Your task to perform on an android device: toggle notifications settings in the gmail app Image 0: 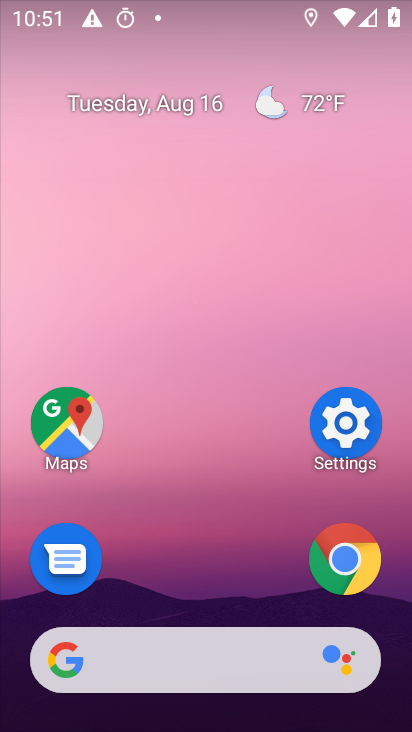
Step 0: drag from (222, 476) to (287, 136)
Your task to perform on an android device: toggle notifications settings in the gmail app Image 1: 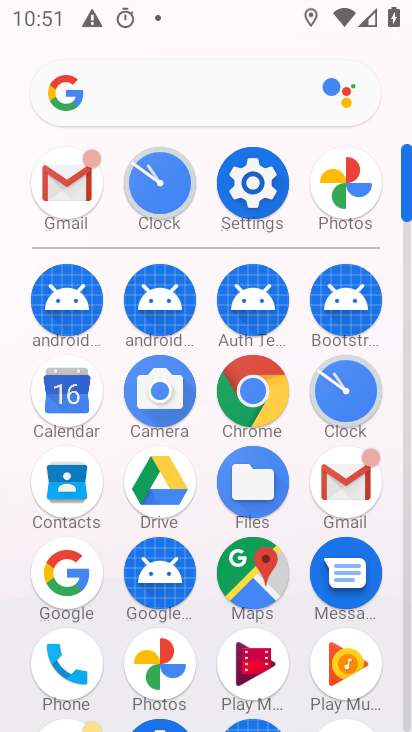
Step 1: click (344, 491)
Your task to perform on an android device: toggle notifications settings in the gmail app Image 2: 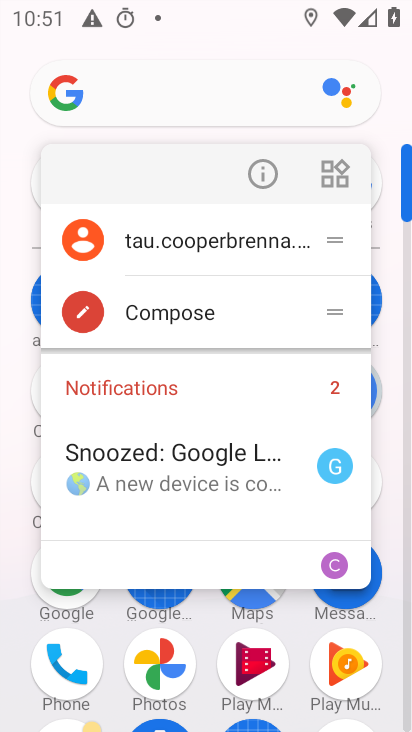
Step 2: click (382, 484)
Your task to perform on an android device: toggle notifications settings in the gmail app Image 3: 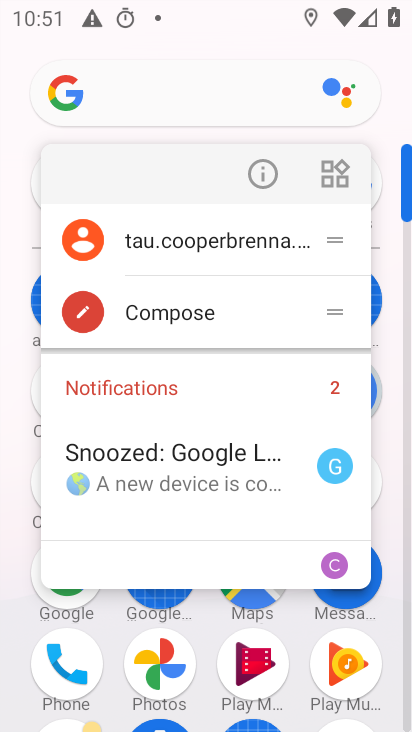
Step 3: click (382, 482)
Your task to perform on an android device: toggle notifications settings in the gmail app Image 4: 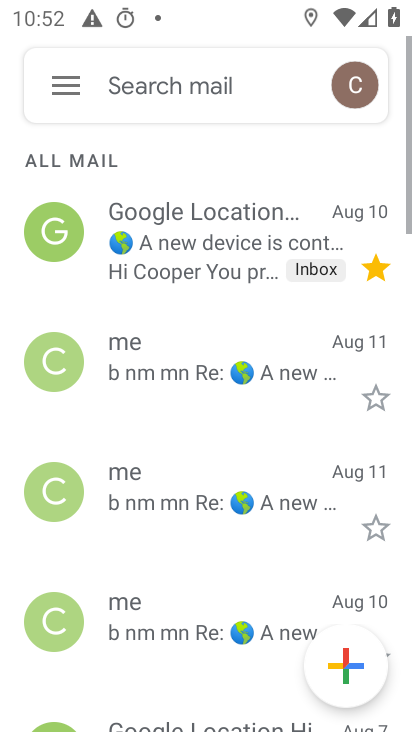
Step 4: click (61, 80)
Your task to perform on an android device: toggle notifications settings in the gmail app Image 5: 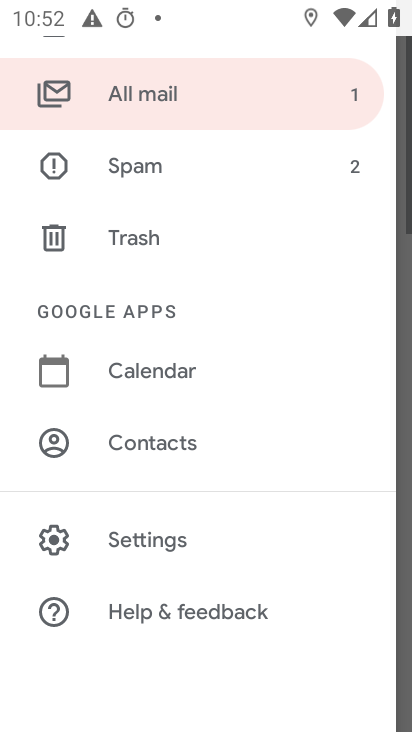
Step 5: click (150, 541)
Your task to perform on an android device: toggle notifications settings in the gmail app Image 6: 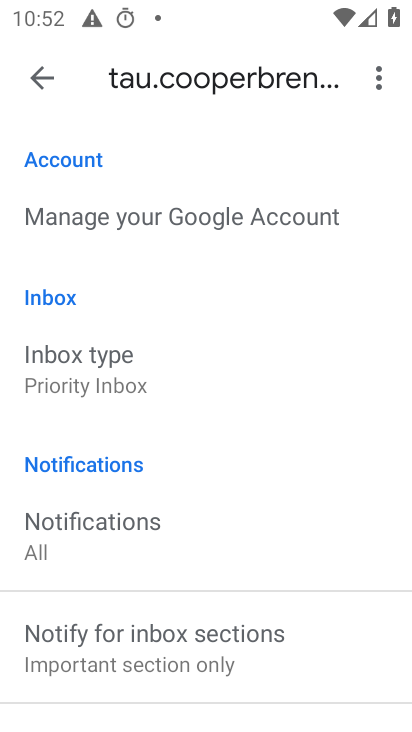
Step 6: click (104, 526)
Your task to perform on an android device: toggle notifications settings in the gmail app Image 7: 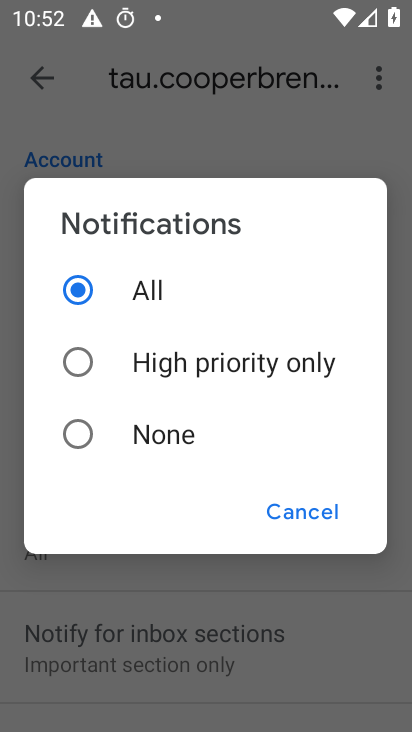
Step 7: click (78, 428)
Your task to perform on an android device: toggle notifications settings in the gmail app Image 8: 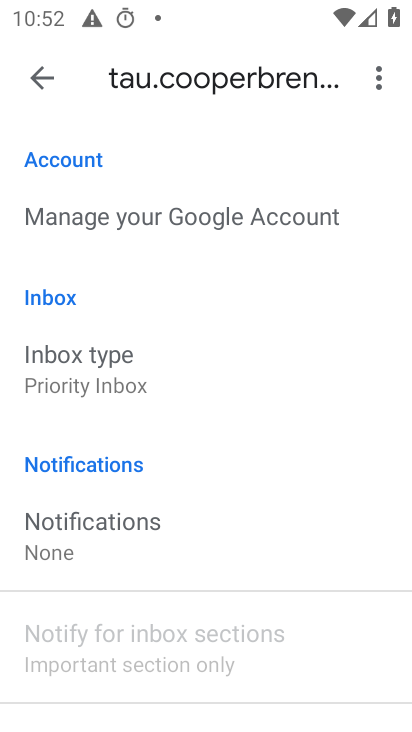
Step 8: task complete